Your task to perform on an android device: Open Reddit.com Image 0: 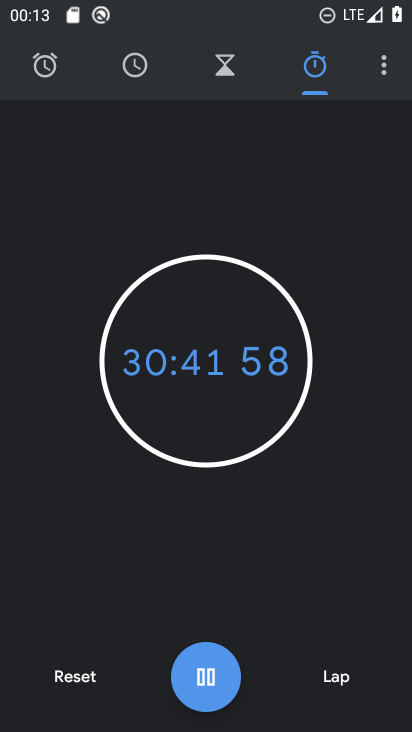
Step 0: press home button
Your task to perform on an android device: Open Reddit.com Image 1: 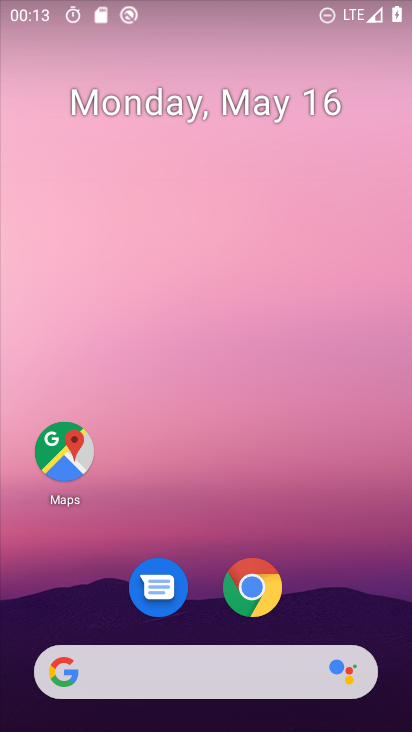
Step 1: click (247, 596)
Your task to perform on an android device: Open Reddit.com Image 2: 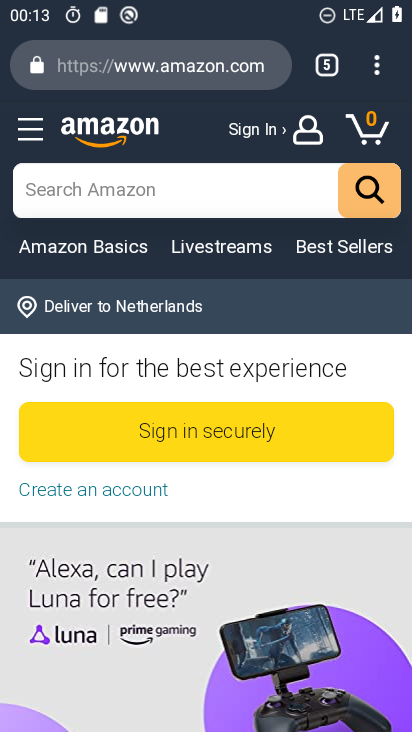
Step 2: click (321, 63)
Your task to perform on an android device: Open Reddit.com Image 3: 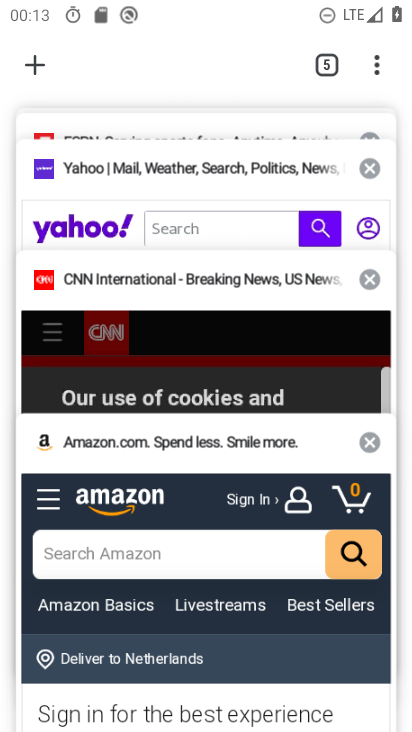
Step 3: click (370, 166)
Your task to perform on an android device: Open Reddit.com Image 4: 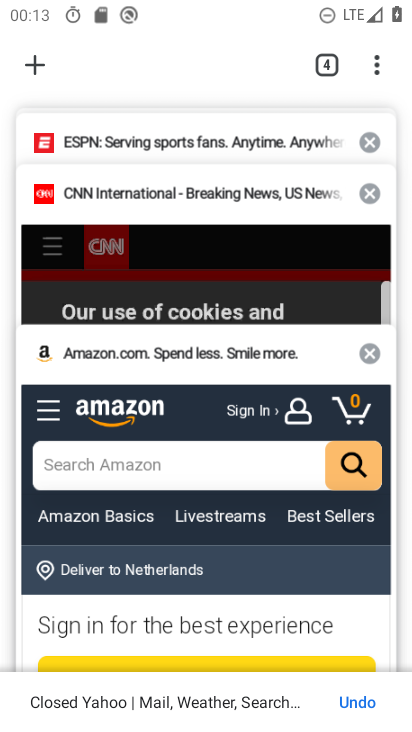
Step 4: click (370, 158)
Your task to perform on an android device: Open Reddit.com Image 5: 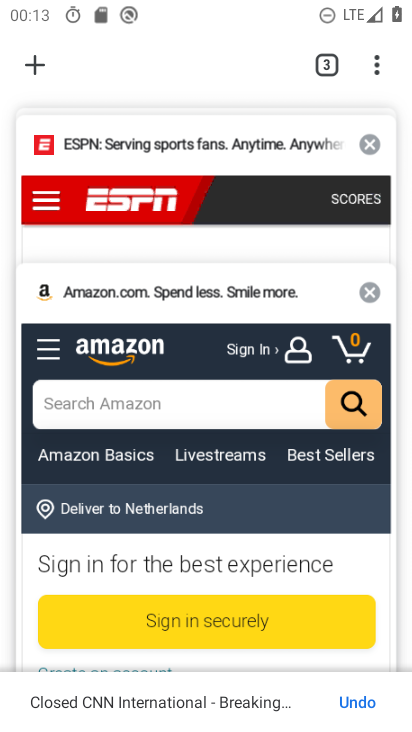
Step 5: click (368, 144)
Your task to perform on an android device: Open Reddit.com Image 6: 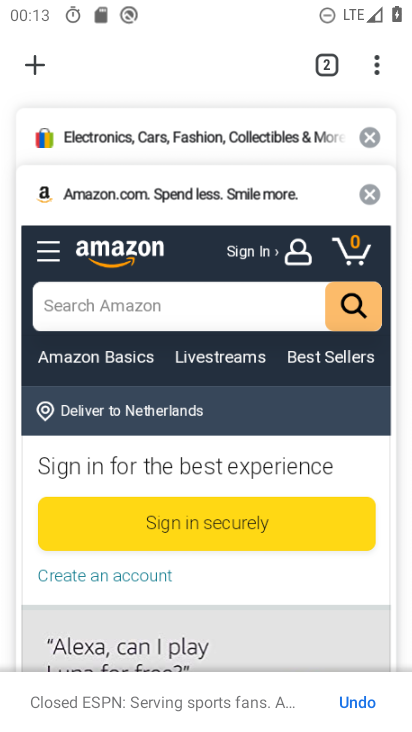
Step 6: click (38, 59)
Your task to perform on an android device: Open Reddit.com Image 7: 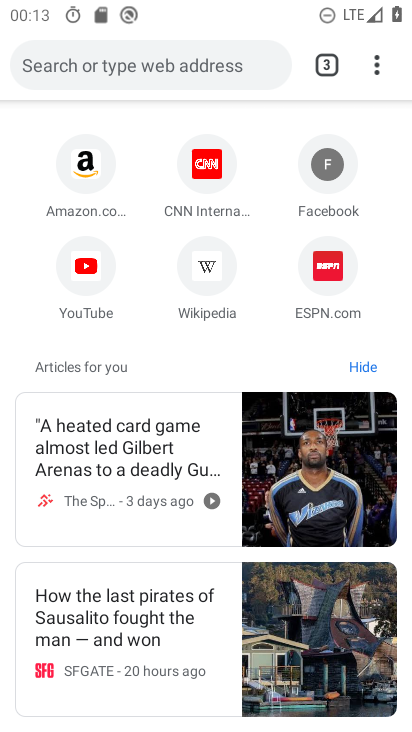
Step 7: click (159, 69)
Your task to perform on an android device: Open Reddit.com Image 8: 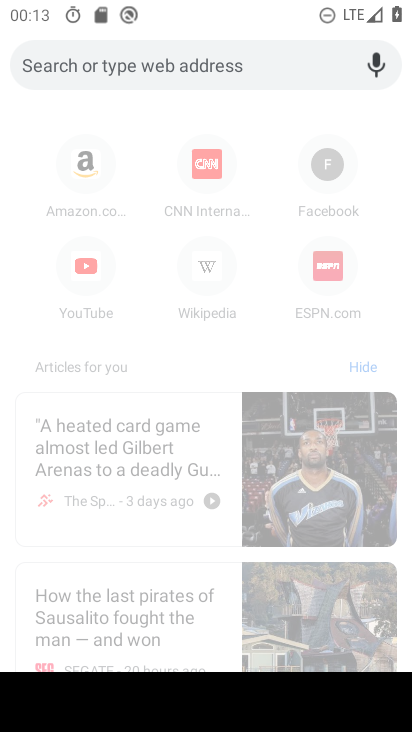
Step 8: type "Reddit.com"
Your task to perform on an android device: Open Reddit.com Image 9: 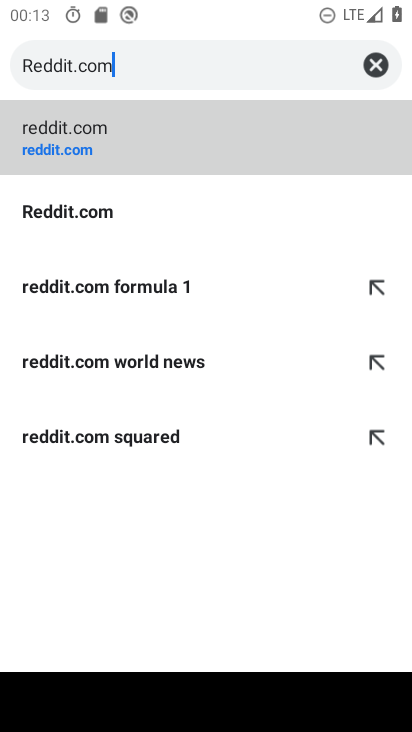
Step 9: click (136, 150)
Your task to perform on an android device: Open Reddit.com Image 10: 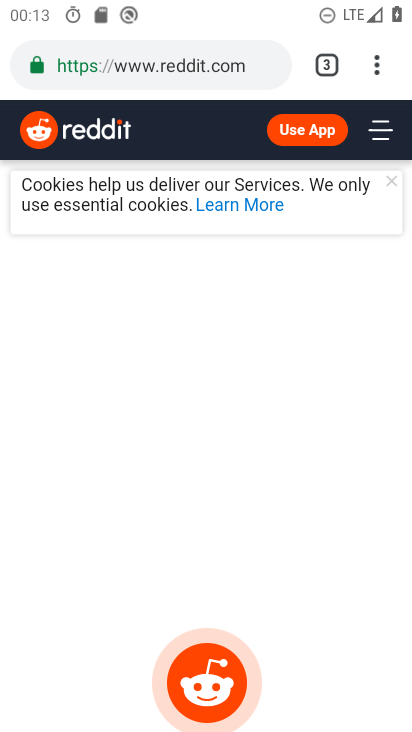
Step 10: task complete